Your task to perform on an android device: turn on airplane mode Image 0: 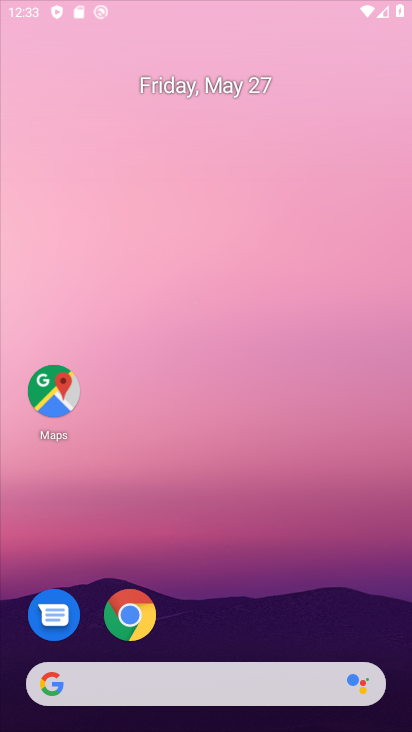
Step 0: press home button
Your task to perform on an android device: turn on airplane mode Image 1: 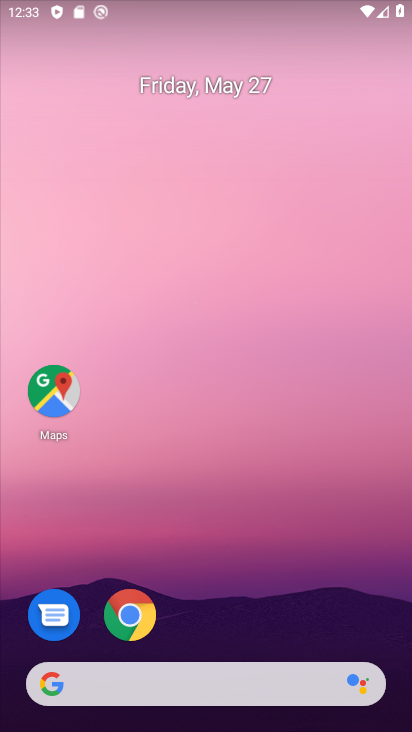
Step 1: drag from (231, 24) to (237, 460)
Your task to perform on an android device: turn on airplane mode Image 2: 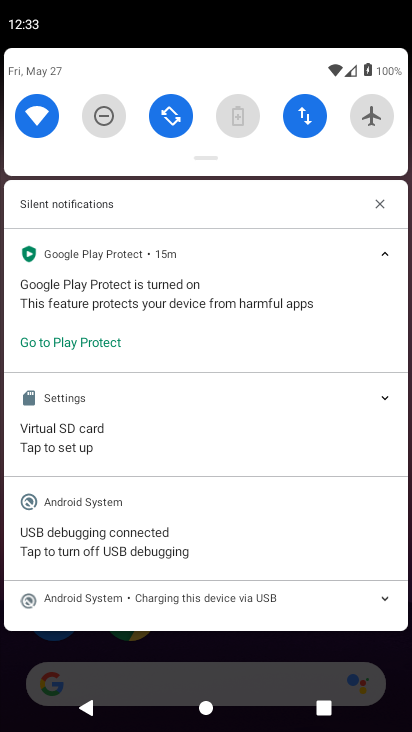
Step 2: click (375, 113)
Your task to perform on an android device: turn on airplane mode Image 3: 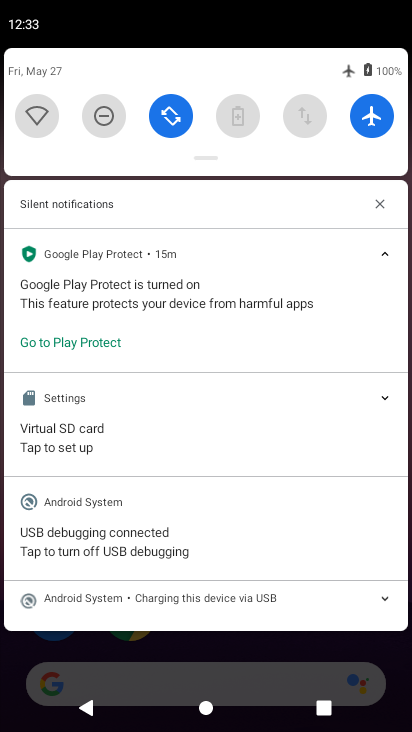
Step 3: task complete